Your task to perform on an android device: Go to Google Image 0: 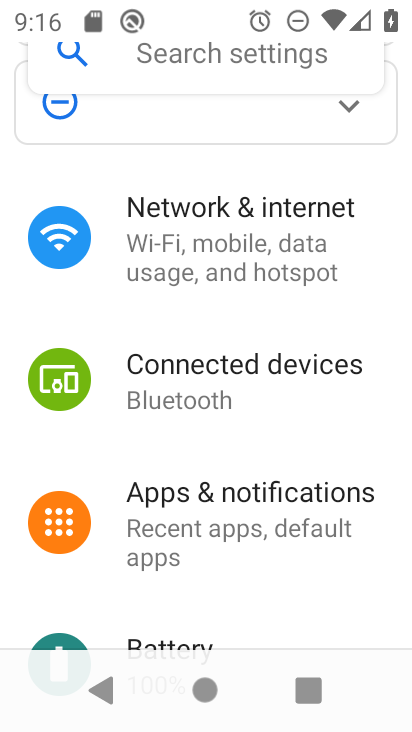
Step 0: press home button
Your task to perform on an android device: Go to Google Image 1: 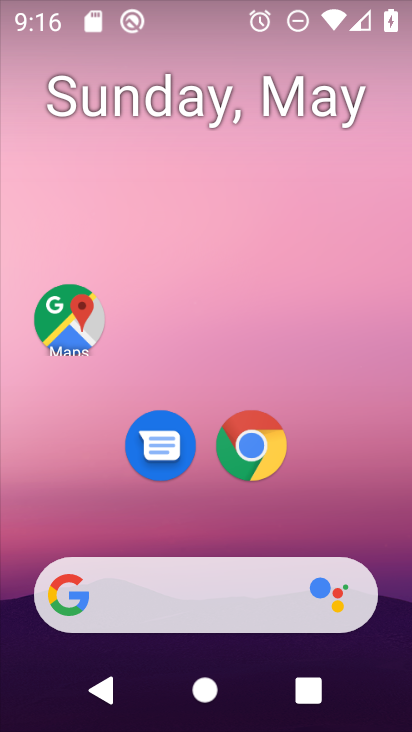
Step 1: drag from (305, 583) to (355, 163)
Your task to perform on an android device: Go to Google Image 2: 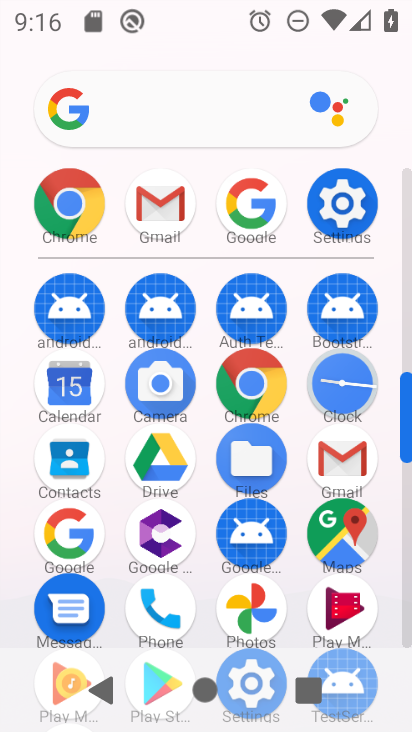
Step 2: drag from (276, 426) to (295, 307)
Your task to perform on an android device: Go to Google Image 3: 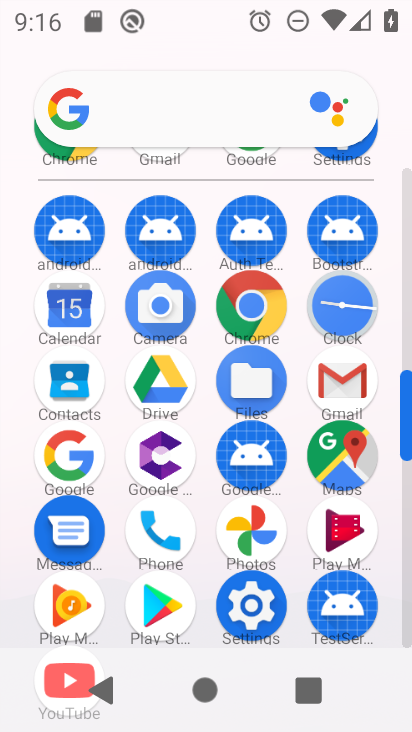
Step 3: click (82, 465)
Your task to perform on an android device: Go to Google Image 4: 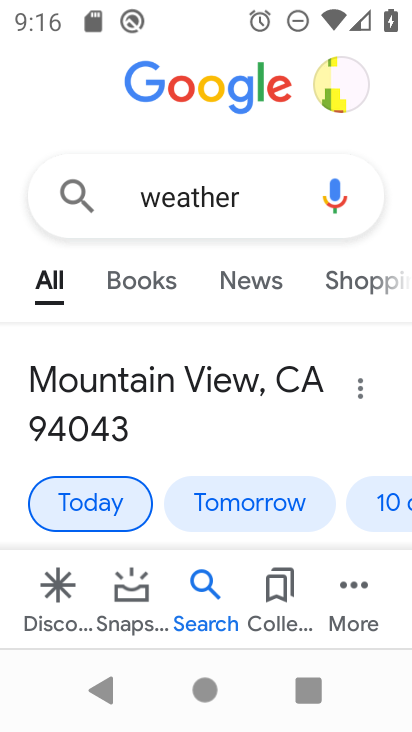
Step 4: task complete